Your task to perform on an android device: Turn off the flashlight Image 0: 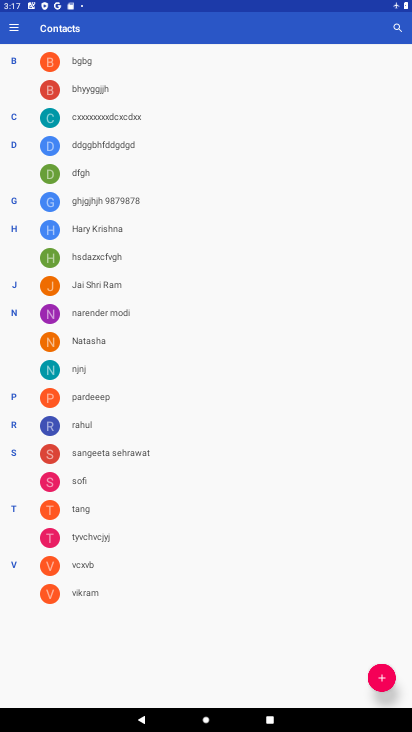
Step 0: task impossible